Your task to perform on an android device: Open Maps and search for coffee Image 0: 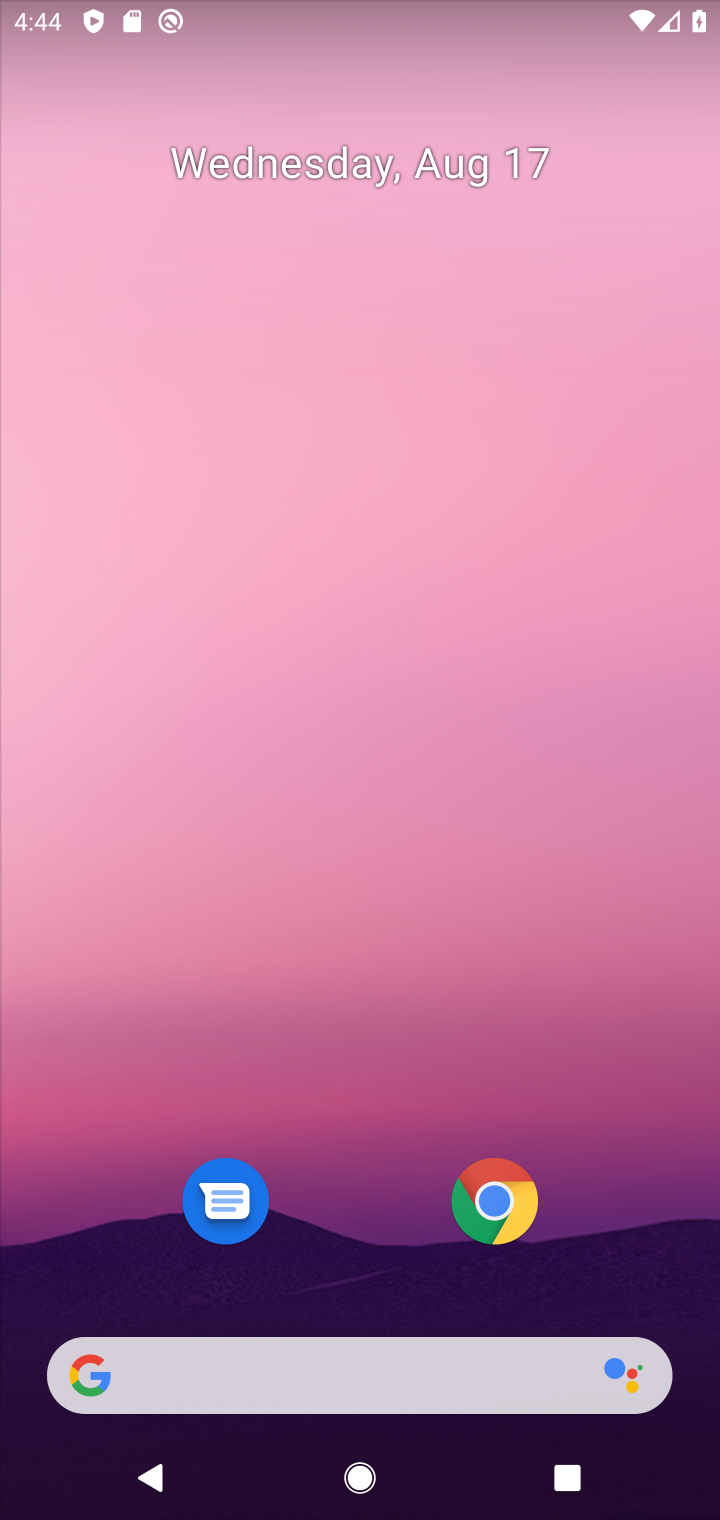
Step 0: drag from (424, 1264) to (375, 468)
Your task to perform on an android device: Open Maps and search for coffee Image 1: 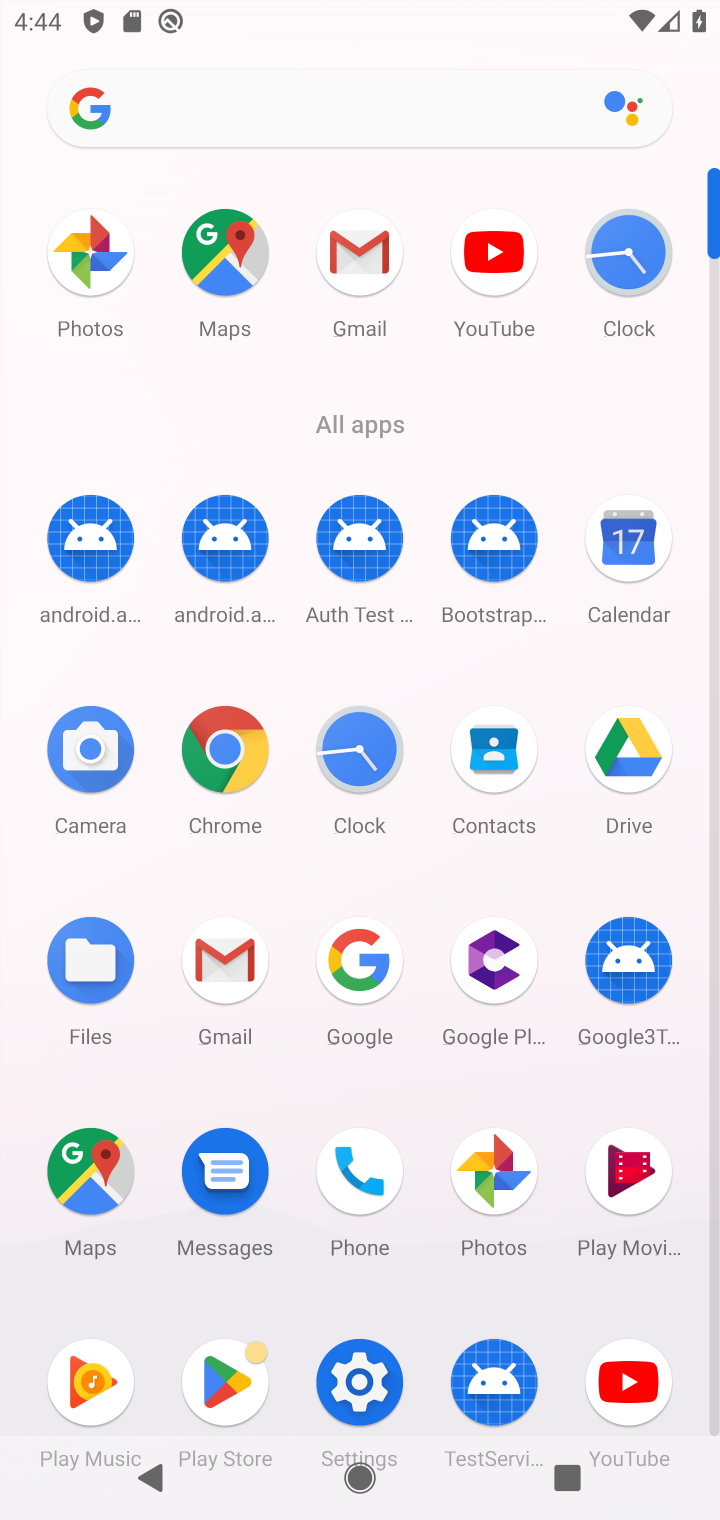
Step 1: click (232, 281)
Your task to perform on an android device: Open Maps and search for coffee Image 2: 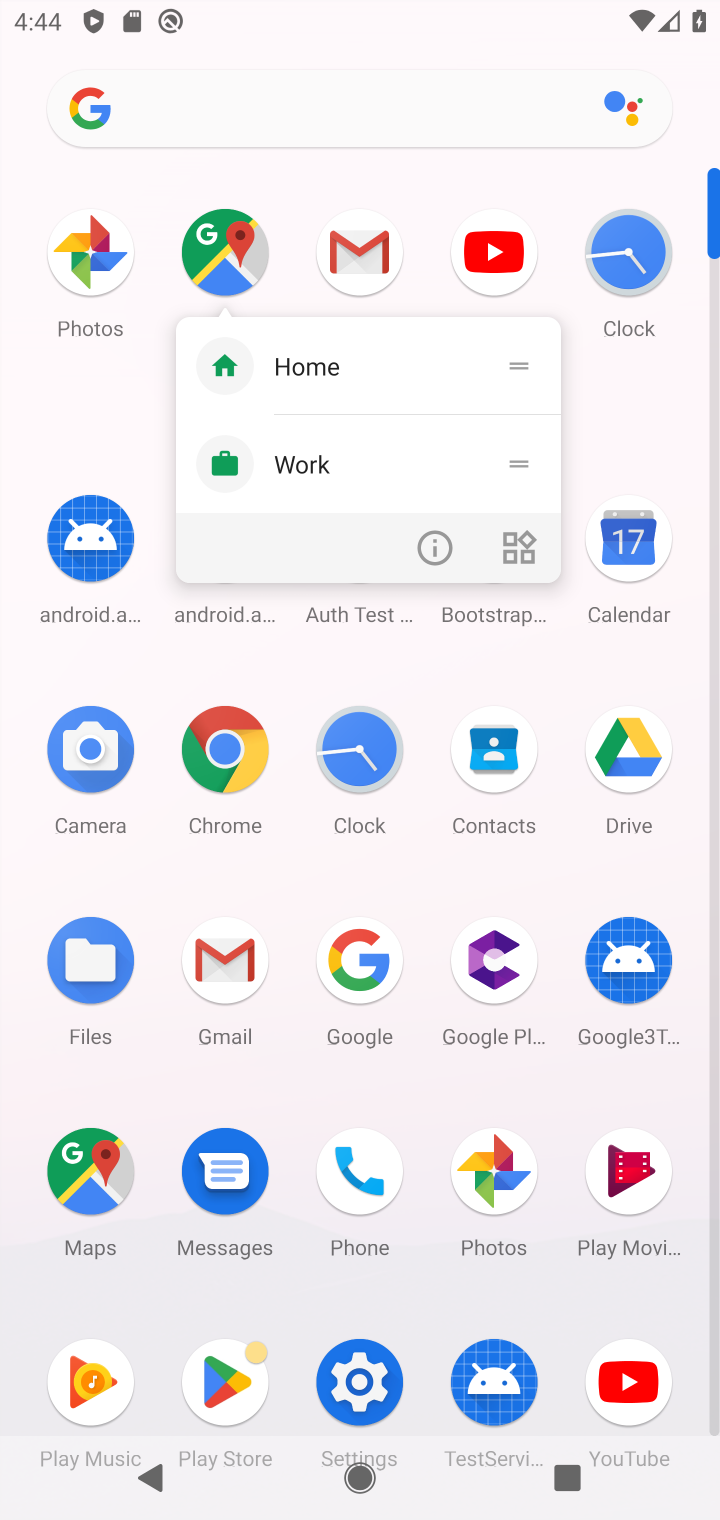
Step 2: click (232, 281)
Your task to perform on an android device: Open Maps and search for coffee Image 3: 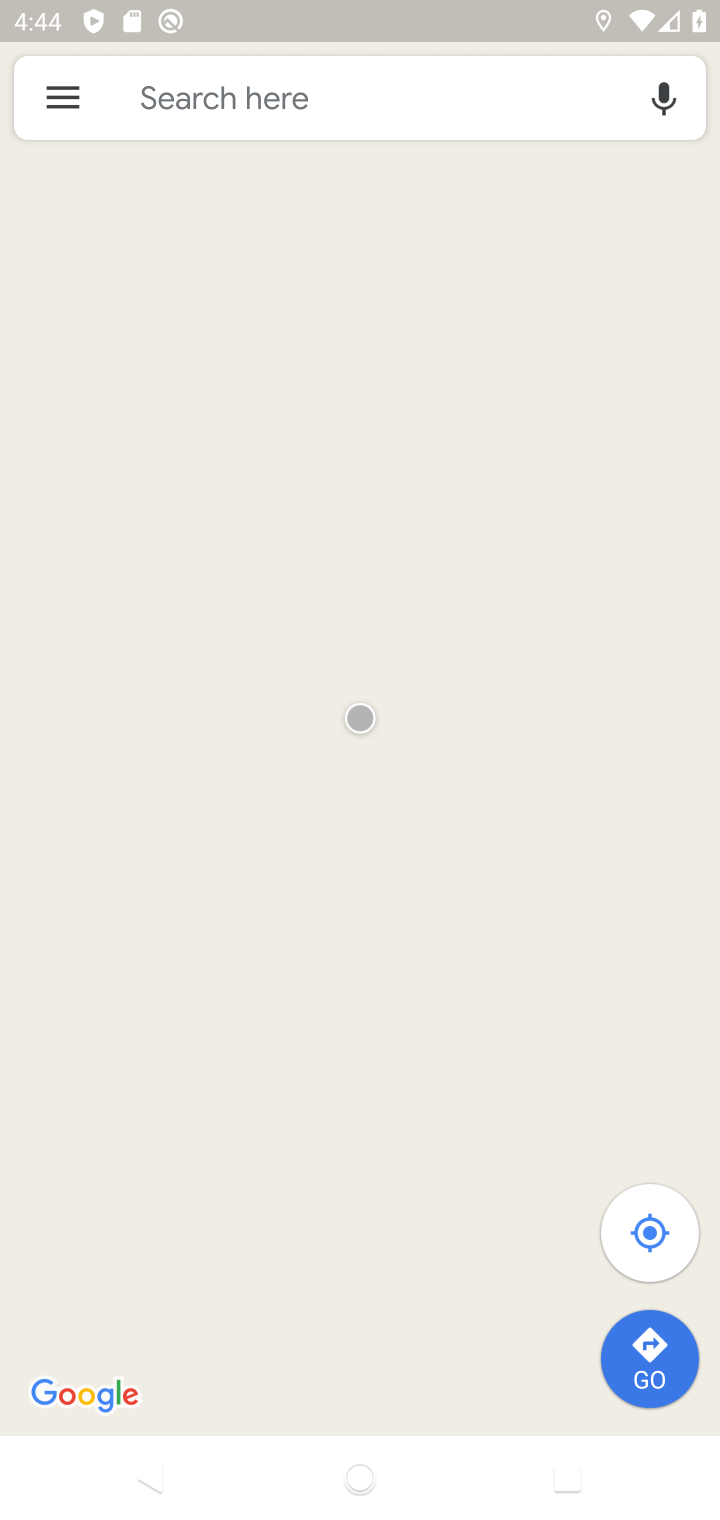
Step 3: click (294, 103)
Your task to perform on an android device: Open Maps and search for coffee Image 4: 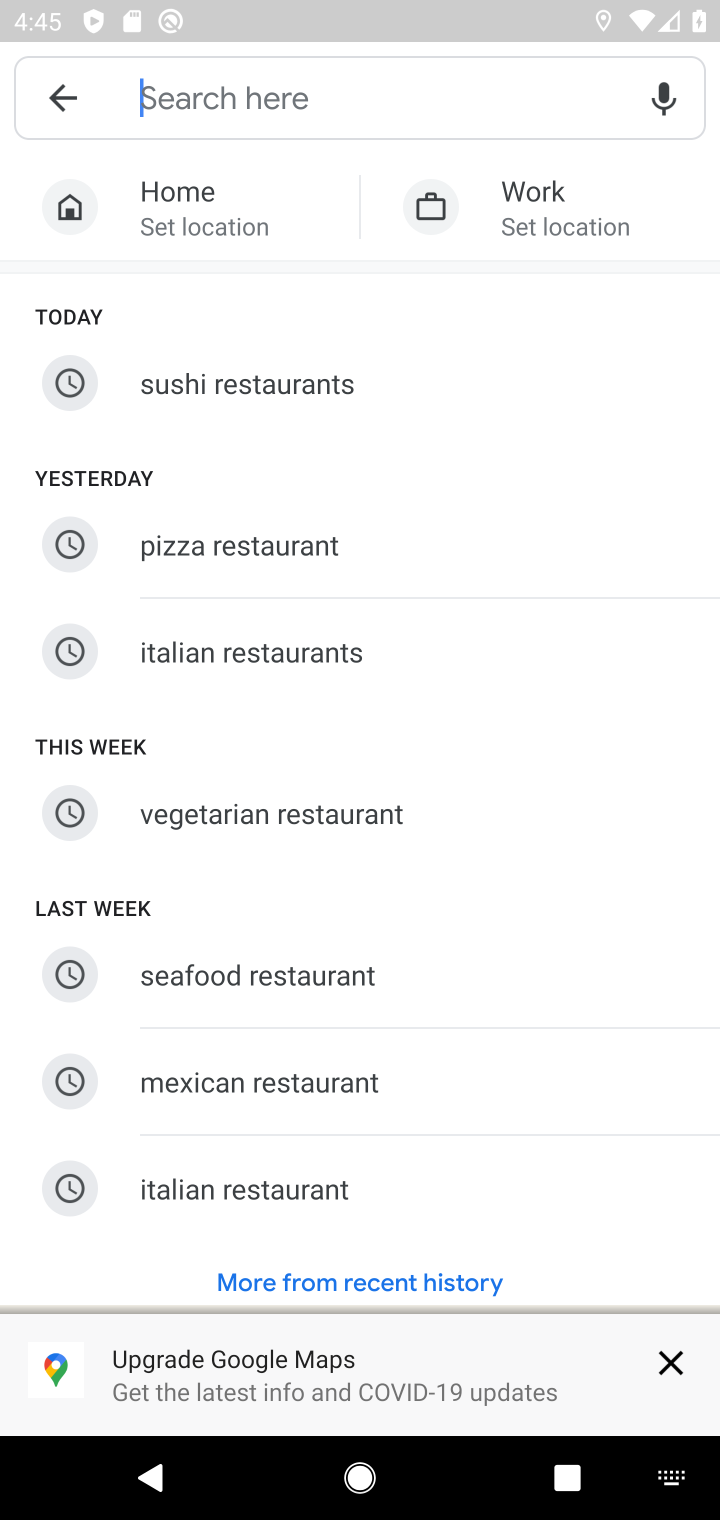
Step 4: type "coffee"
Your task to perform on an android device: Open Maps and search for coffee Image 5: 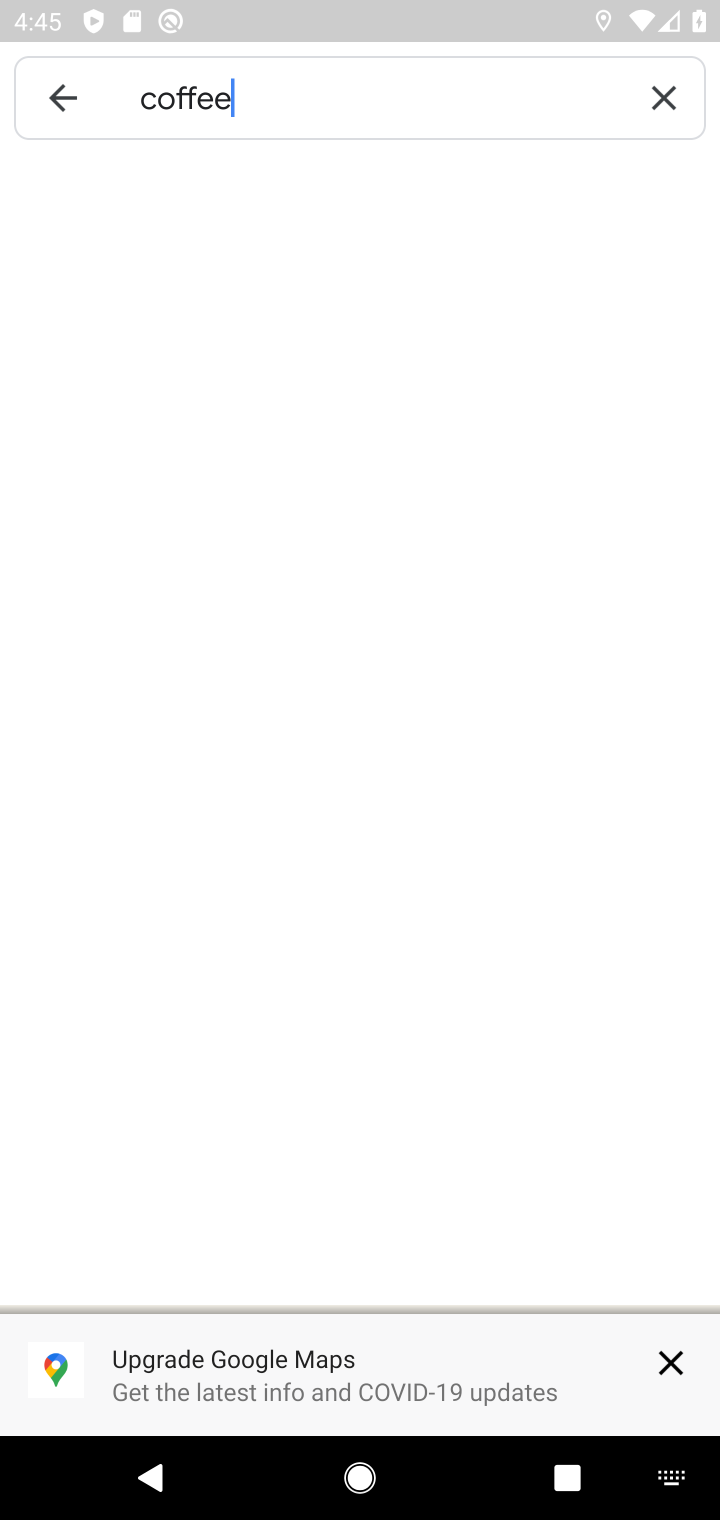
Step 5: press enter
Your task to perform on an android device: Open Maps and search for coffee Image 6: 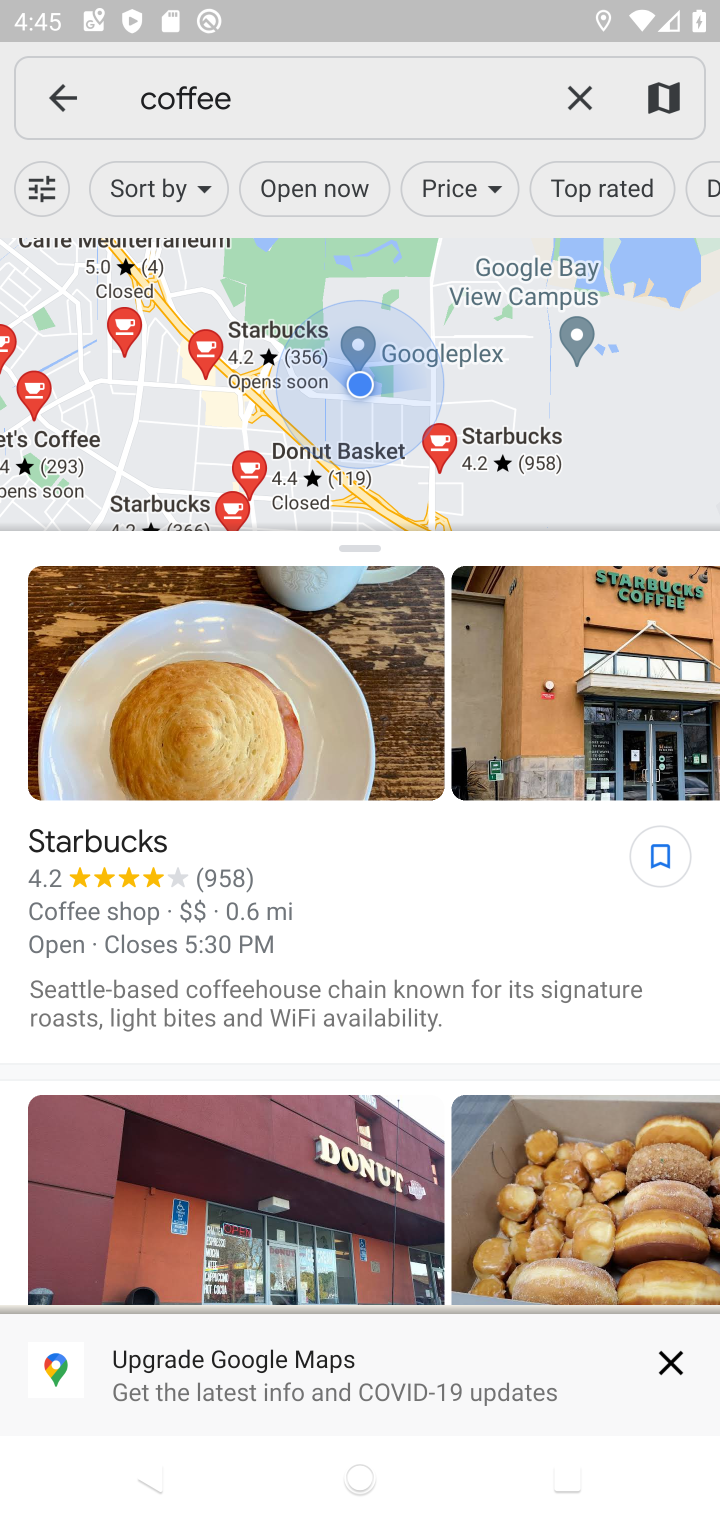
Step 6: task complete